Your task to perform on an android device: set default search engine in the chrome app Image 0: 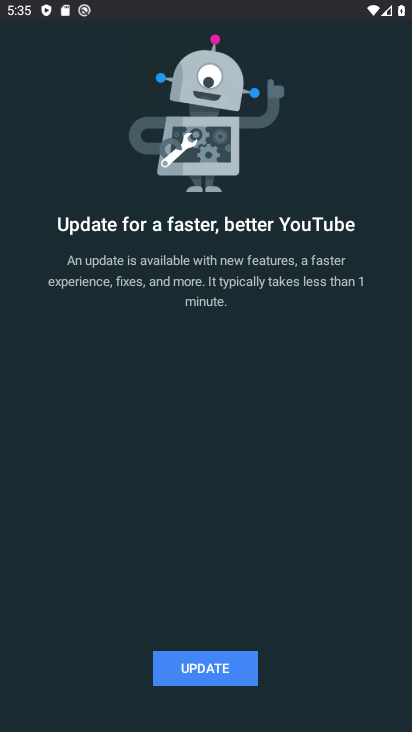
Step 0: press home button
Your task to perform on an android device: set default search engine in the chrome app Image 1: 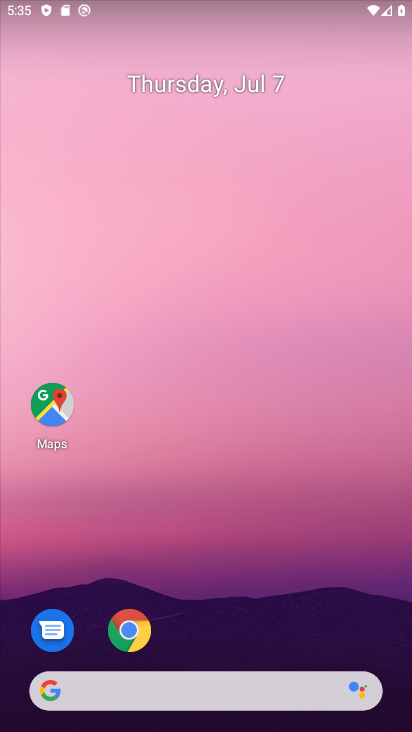
Step 1: drag from (197, 572) to (199, 1)
Your task to perform on an android device: set default search engine in the chrome app Image 2: 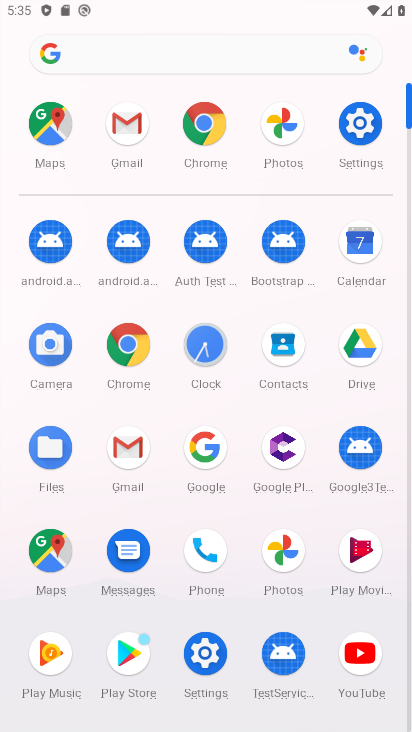
Step 2: click (188, 127)
Your task to perform on an android device: set default search engine in the chrome app Image 3: 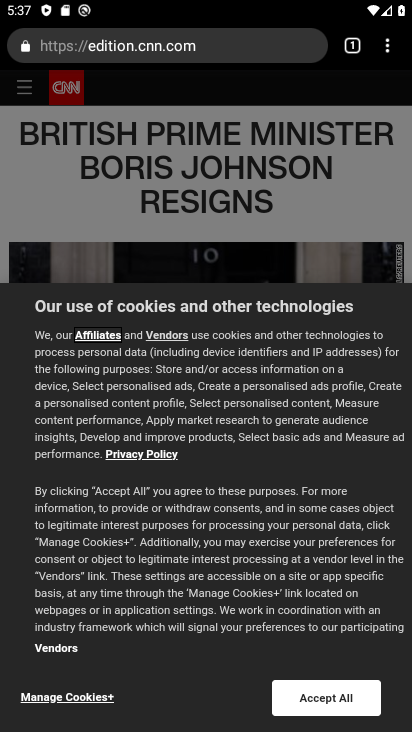
Step 3: click (391, 42)
Your task to perform on an android device: set default search engine in the chrome app Image 4: 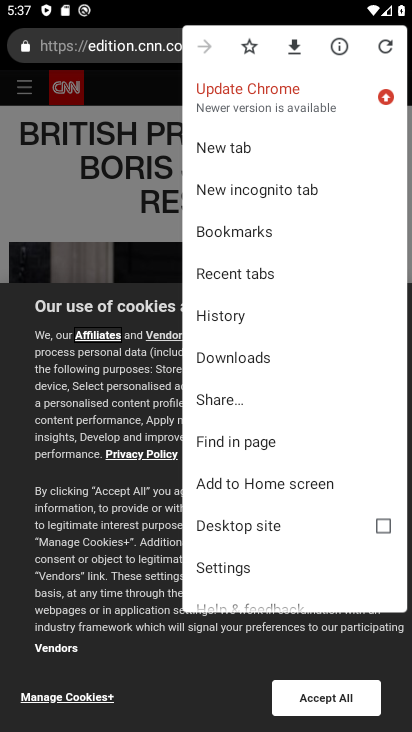
Step 4: click (267, 570)
Your task to perform on an android device: set default search engine in the chrome app Image 5: 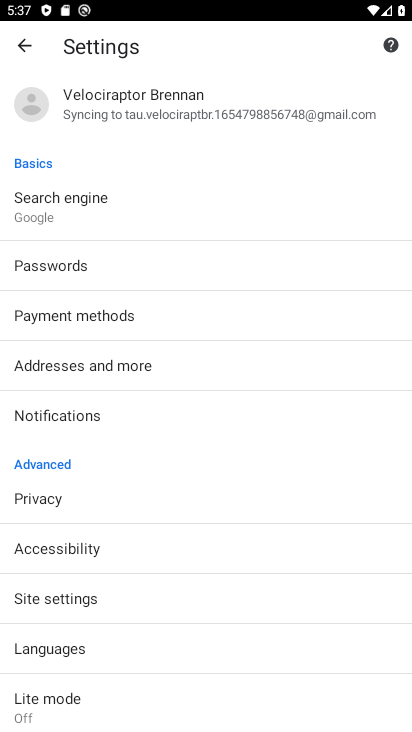
Step 5: drag from (131, 594) to (174, 265)
Your task to perform on an android device: set default search engine in the chrome app Image 6: 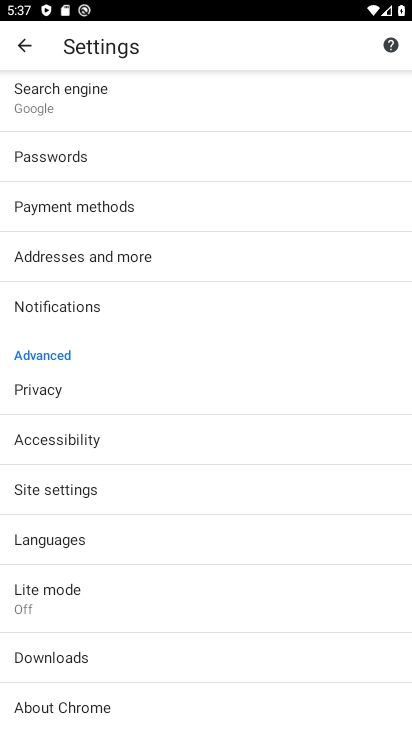
Step 6: click (117, 102)
Your task to perform on an android device: set default search engine in the chrome app Image 7: 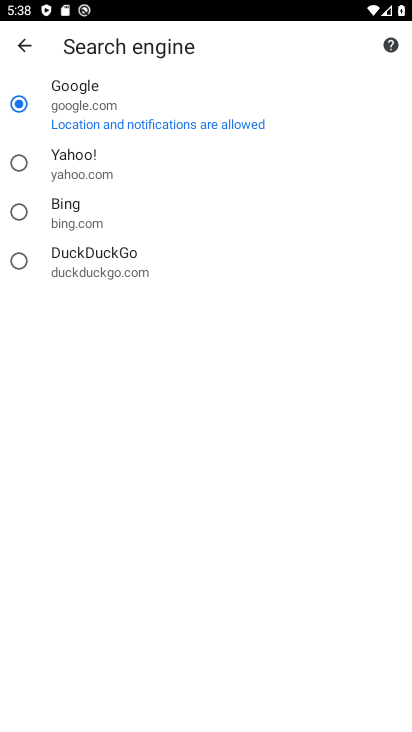
Step 7: click (24, 162)
Your task to perform on an android device: set default search engine in the chrome app Image 8: 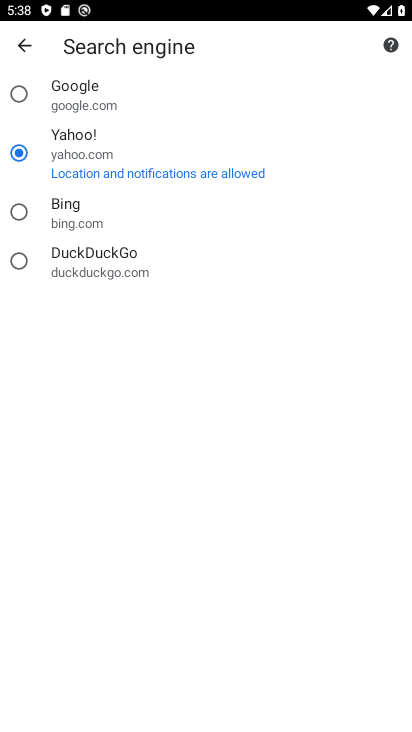
Step 8: task complete